Your task to perform on an android device: Open Google Maps Image 0: 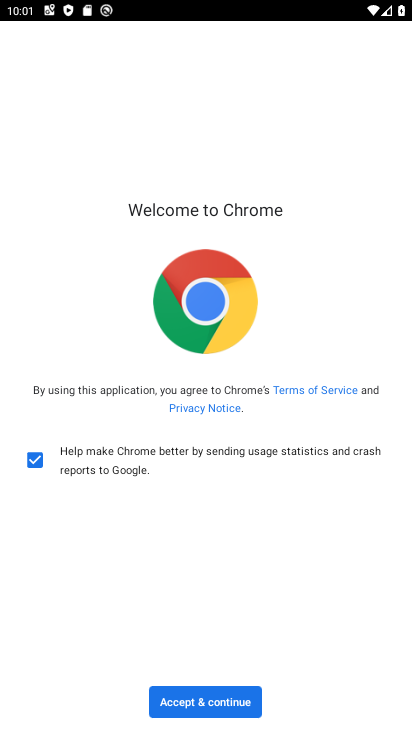
Step 0: press home button
Your task to perform on an android device: Open Google Maps Image 1: 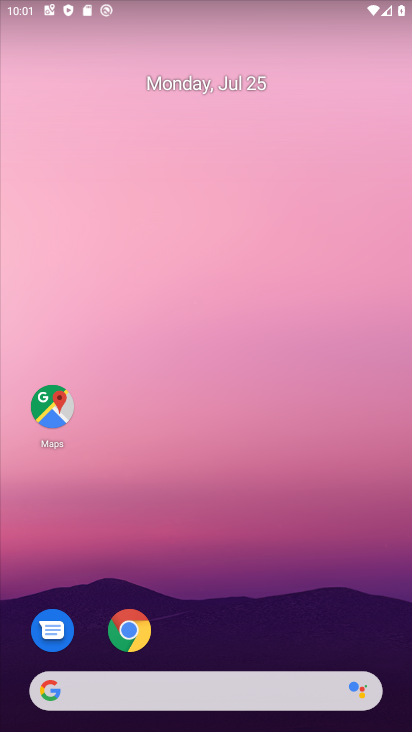
Step 1: drag from (286, 591) to (298, 99)
Your task to perform on an android device: Open Google Maps Image 2: 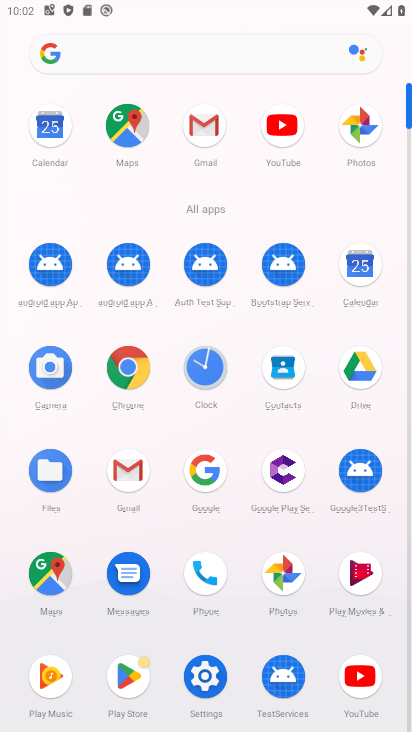
Step 2: click (53, 584)
Your task to perform on an android device: Open Google Maps Image 3: 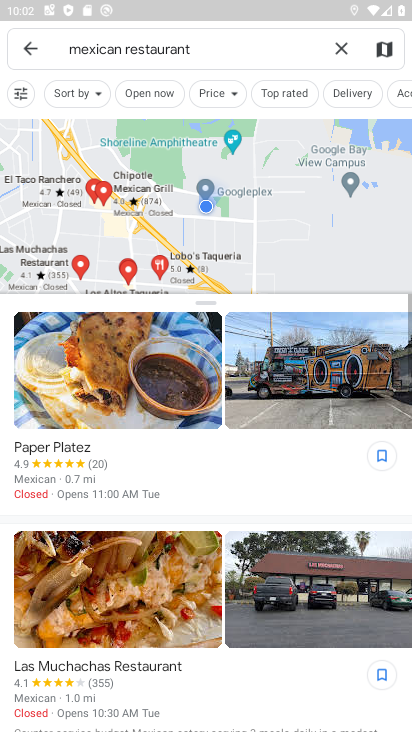
Step 3: task complete